Your task to perform on an android device: read, delete, or share a saved page in the chrome app Image 0: 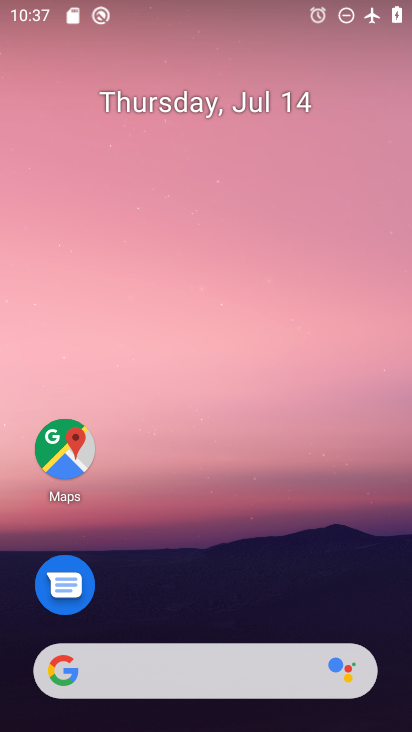
Step 0: drag from (193, 611) to (126, 116)
Your task to perform on an android device: read, delete, or share a saved page in the chrome app Image 1: 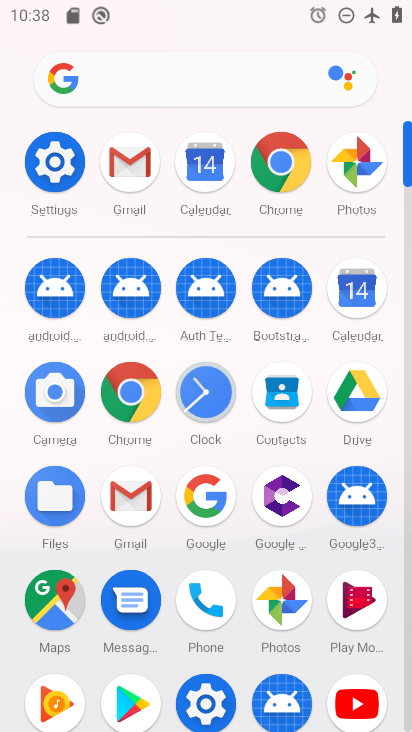
Step 1: click (146, 393)
Your task to perform on an android device: read, delete, or share a saved page in the chrome app Image 2: 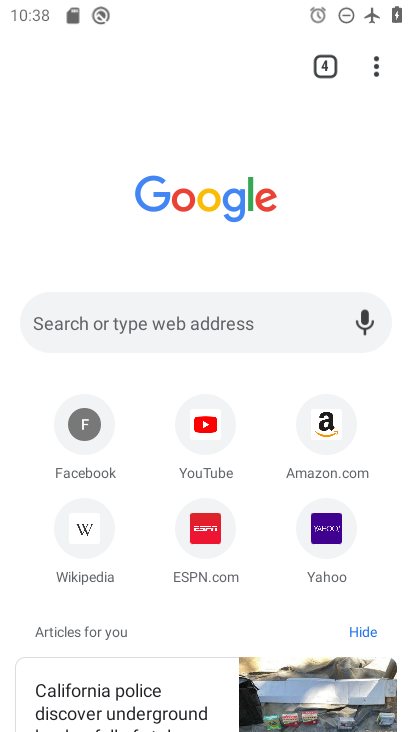
Step 2: click (374, 63)
Your task to perform on an android device: read, delete, or share a saved page in the chrome app Image 3: 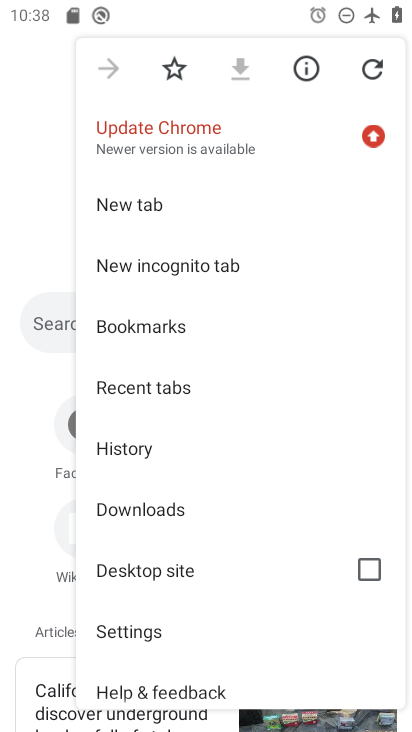
Step 3: click (118, 497)
Your task to perform on an android device: read, delete, or share a saved page in the chrome app Image 4: 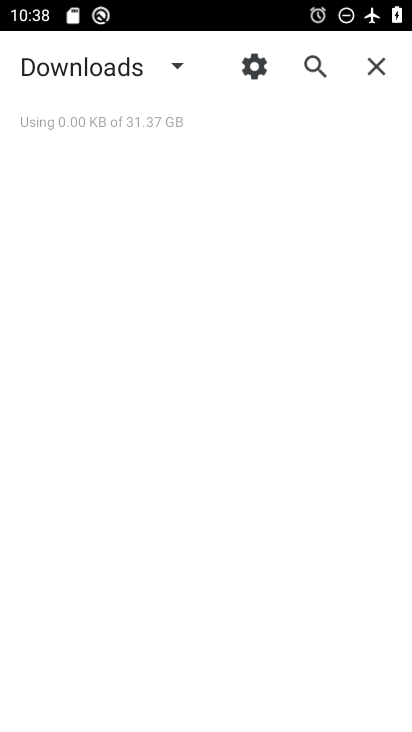
Step 4: task complete